Your task to perform on an android device: Clear all items from cart on ebay.com. Add jbl charge 4 to the cart on ebay.com Image 0: 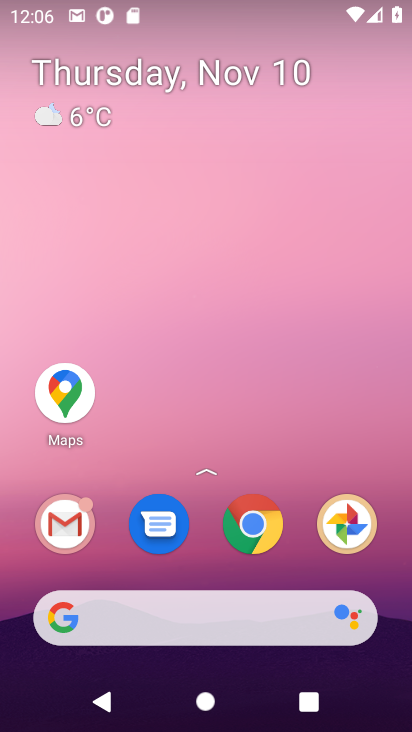
Step 0: click (249, 520)
Your task to perform on an android device: Clear all items from cart on ebay.com. Add jbl charge 4 to the cart on ebay.com Image 1: 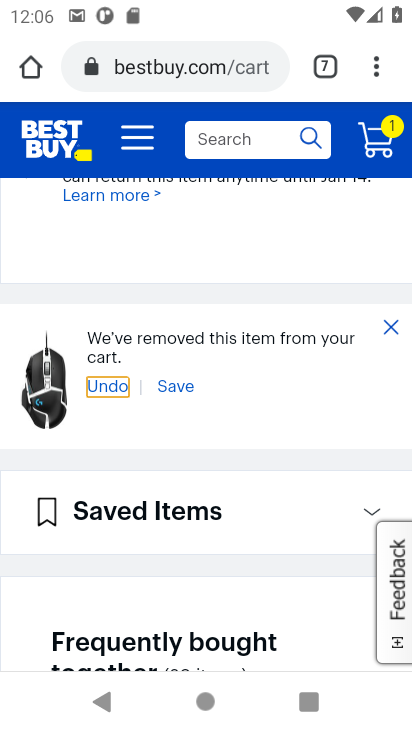
Step 1: click (202, 63)
Your task to perform on an android device: Clear all items from cart on ebay.com. Add jbl charge 4 to the cart on ebay.com Image 2: 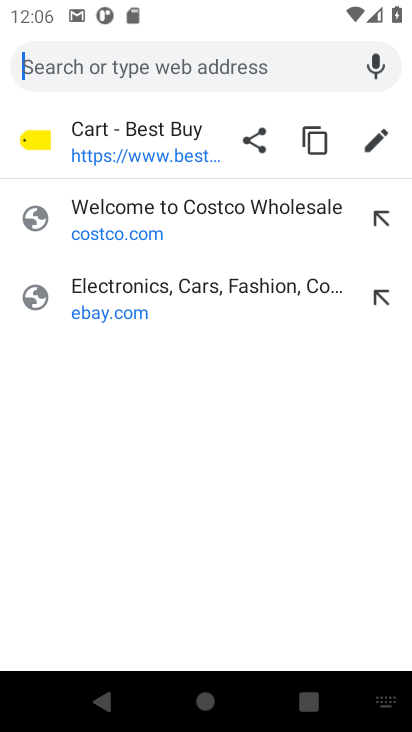
Step 2: type "jbl charge 4 on ebay"
Your task to perform on an android device: Clear all items from cart on ebay.com. Add jbl charge 4 to the cart on ebay.com Image 3: 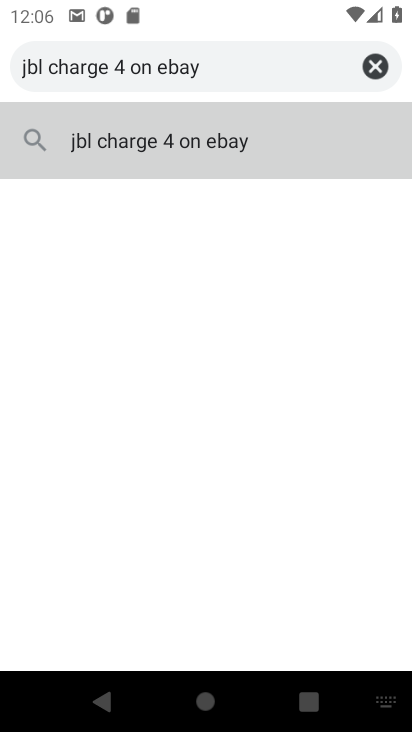
Step 3: click (195, 144)
Your task to perform on an android device: Clear all items from cart on ebay.com. Add jbl charge 4 to the cart on ebay.com Image 4: 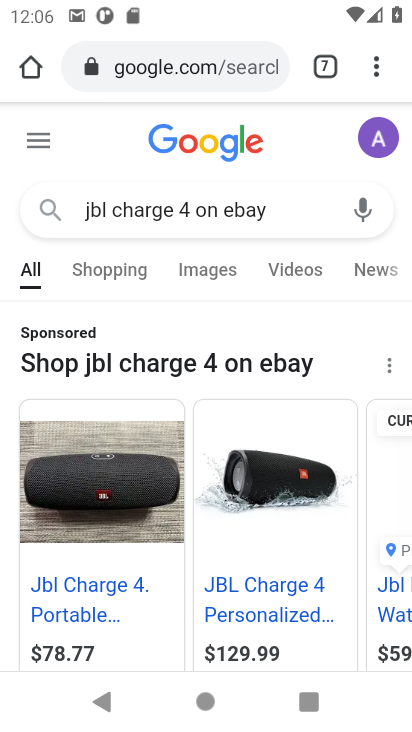
Step 4: drag from (288, 561) to (353, 260)
Your task to perform on an android device: Clear all items from cart on ebay.com. Add jbl charge 4 to the cart on ebay.com Image 5: 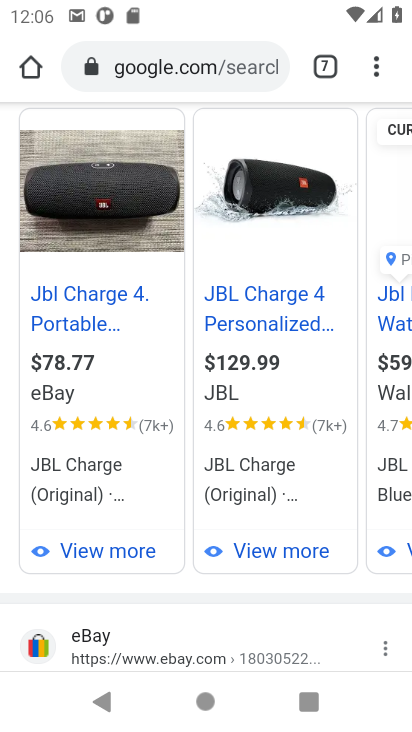
Step 5: click (102, 287)
Your task to perform on an android device: Clear all items from cart on ebay.com. Add jbl charge 4 to the cart on ebay.com Image 6: 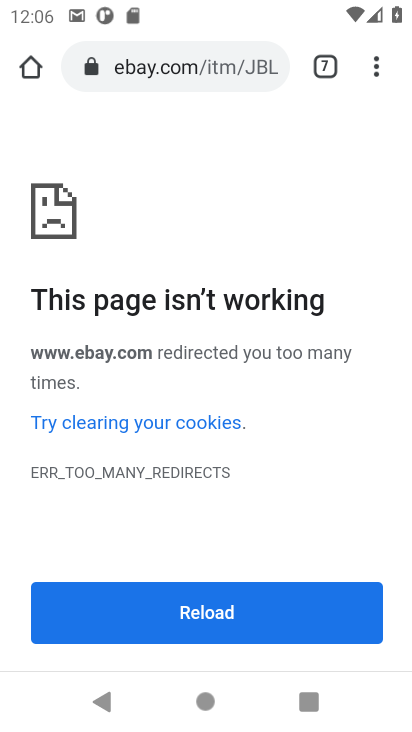
Step 6: task complete